Your task to perform on an android device: toggle data saver in the chrome app Image 0: 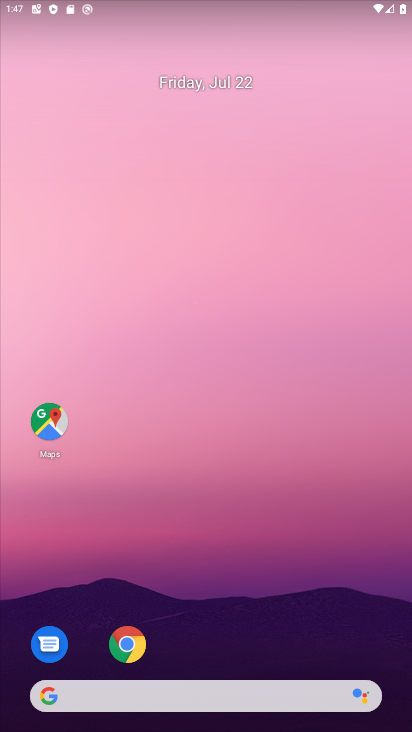
Step 0: click (133, 646)
Your task to perform on an android device: toggle data saver in the chrome app Image 1: 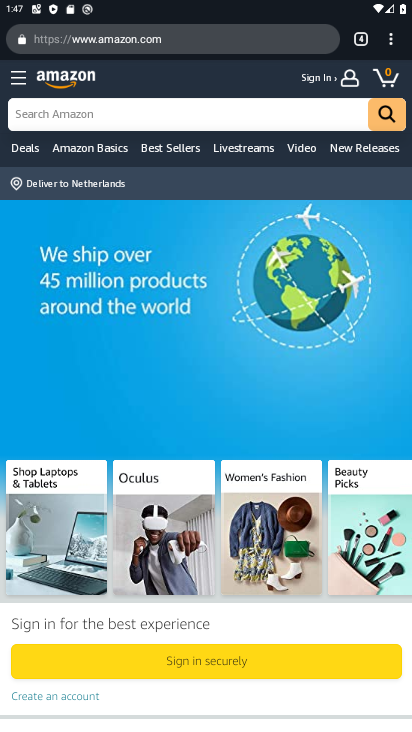
Step 1: click (399, 45)
Your task to perform on an android device: toggle data saver in the chrome app Image 2: 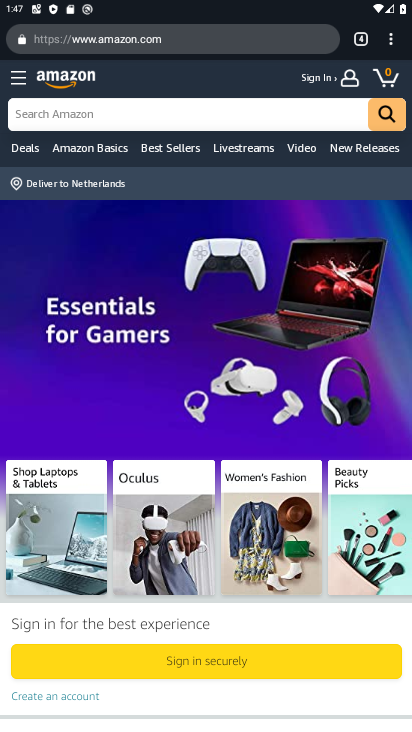
Step 2: click (395, 32)
Your task to perform on an android device: toggle data saver in the chrome app Image 3: 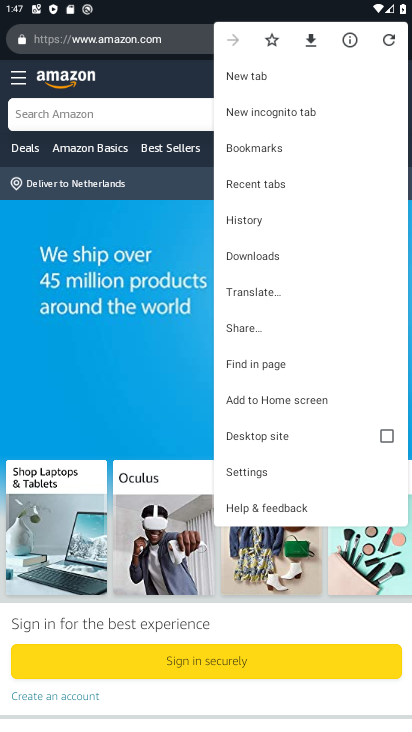
Step 3: click (258, 465)
Your task to perform on an android device: toggle data saver in the chrome app Image 4: 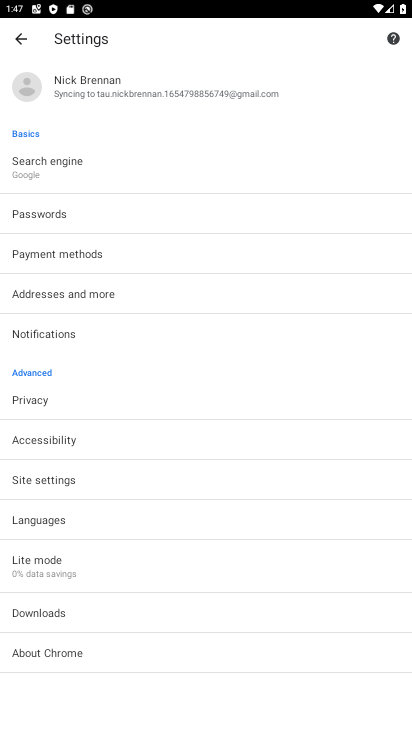
Step 4: click (54, 571)
Your task to perform on an android device: toggle data saver in the chrome app Image 5: 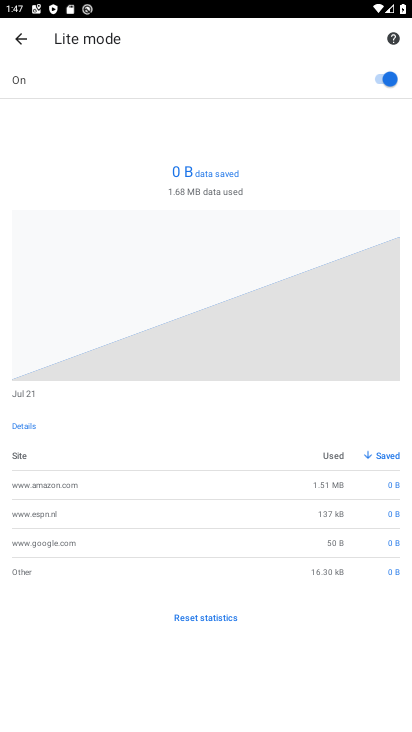
Step 5: click (374, 71)
Your task to perform on an android device: toggle data saver in the chrome app Image 6: 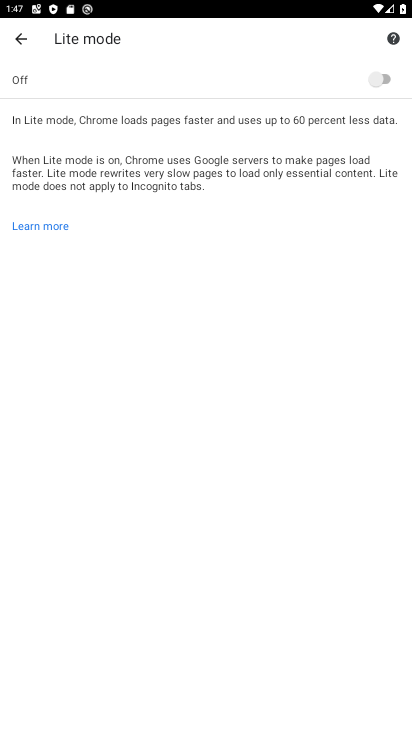
Step 6: task complete